Your task to perform on an android device: turn pop-ups off in chrome Image 0: 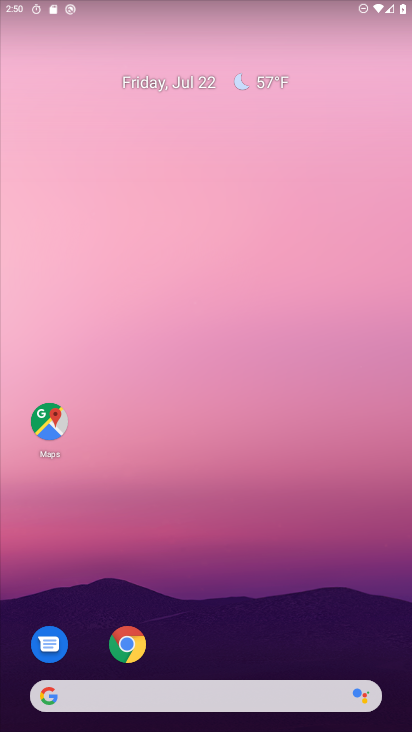
Step 0: click (138, 639)
Your task to perform on an android device: turn pop-ups off in chrome Image 1: 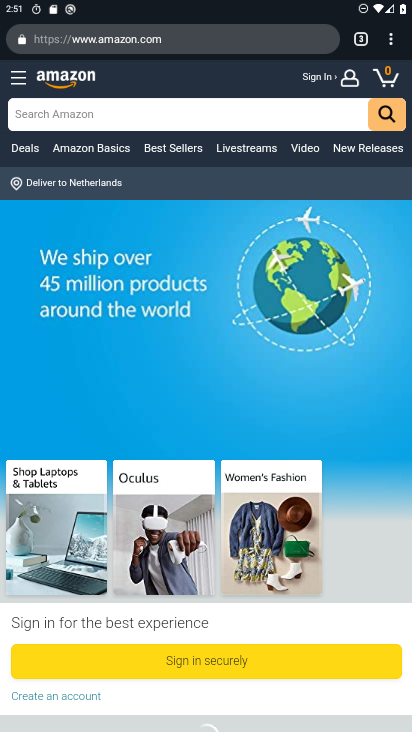
Step 1: drag from (385, 42) to (280, 507)
Your task to perform on an android device: turn pop-ups off in chrome Image 2: 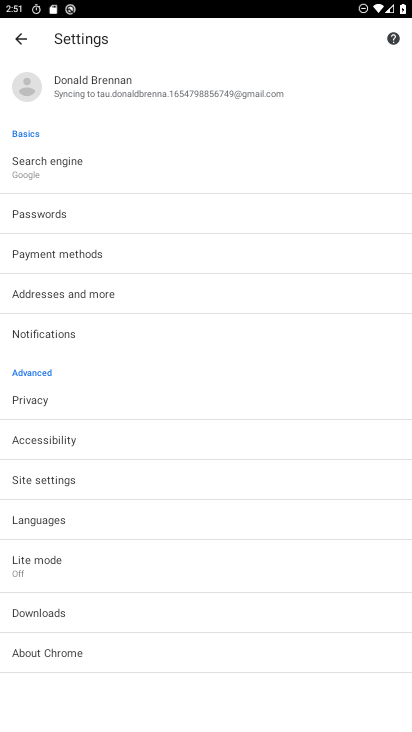
Step 2: click (105, 476)
Your task to perform on an android device: turn pop-ups off in chrome Image 3: 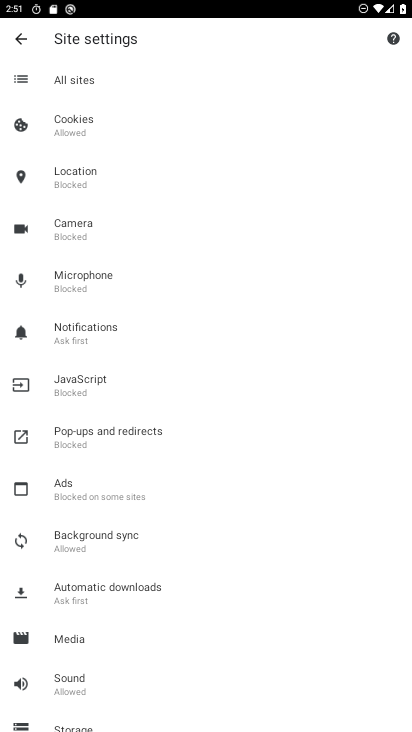
Step 3: click (116, 451)
Your task to perform on an android device: turn pop-ups off in chrome Image 4: 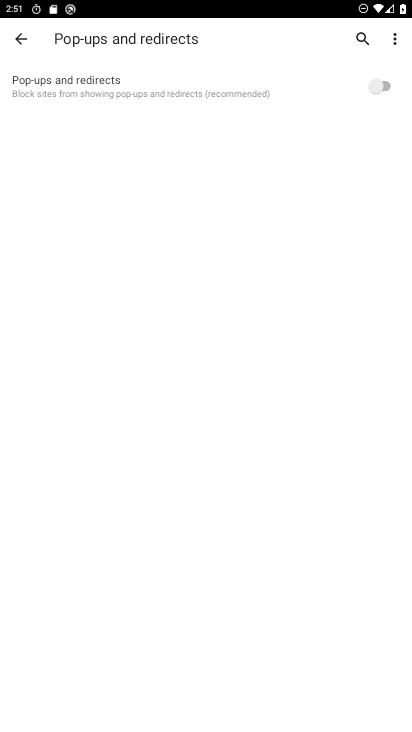
Step 4: click (385, 79)
Your task to perform on an android device: turn pop-ups off in chrome Image 5: 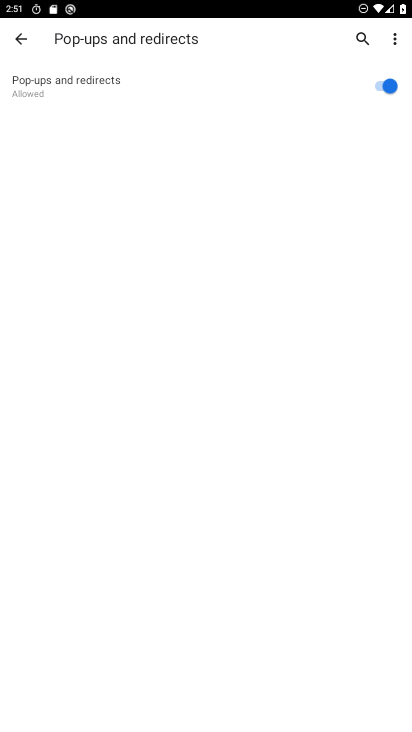
Step 5: click (391, 89)
Your task to perform on an android device: turn pop-ups off in chrome Image 6: 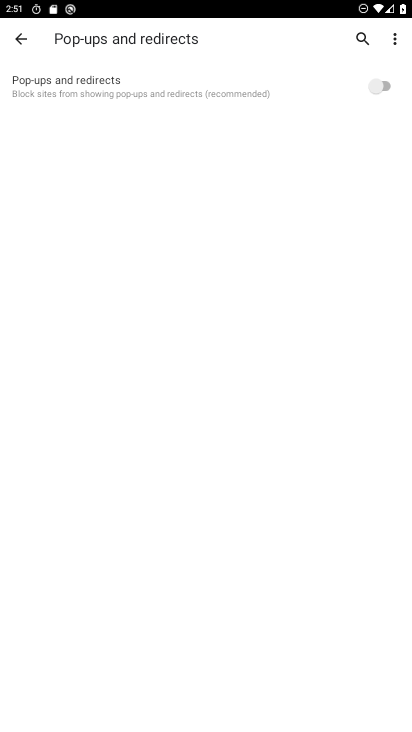
Step 6: task complete